Your task to perform on an android device: Go to network settings Image 0: 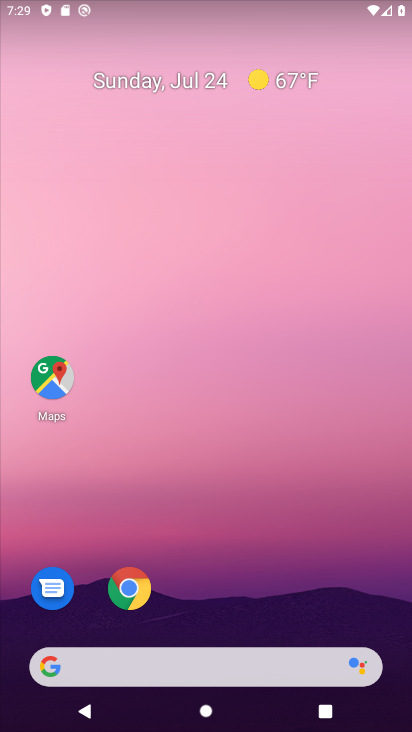
Step 0: drag from (220, 603) to (286, 180)
Your task to perform on an android device: Go to network settings Image 1: 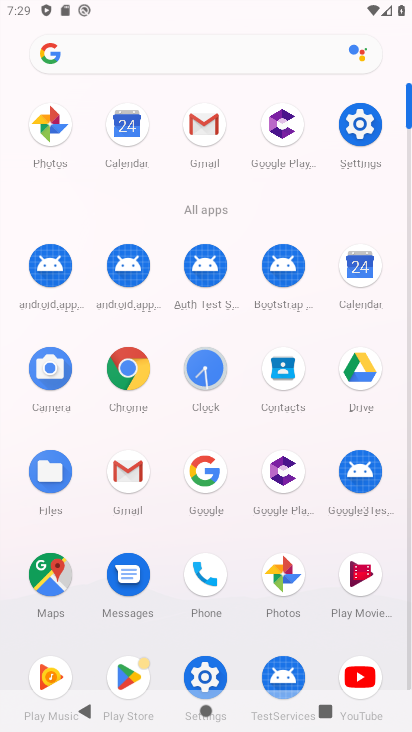
Step 1: click (359, 120)
Your task to perform on an android device: Go to network settings Image 2: 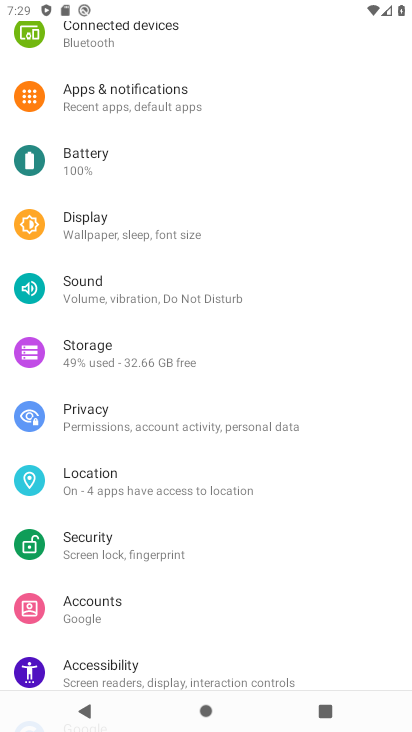
Step 2: drag from (131, 130) to (130, 640)
Your task to perform on an android device: Go to network settings Image 3: 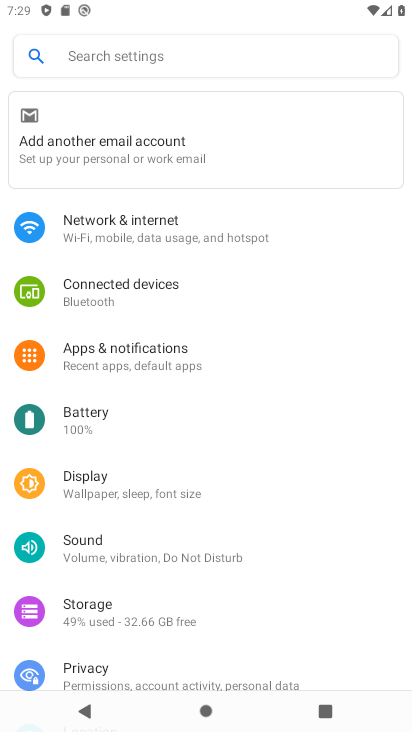
Step 3: click (114, 230)
Your task to perform on an android device: Go to network settings Image 4: 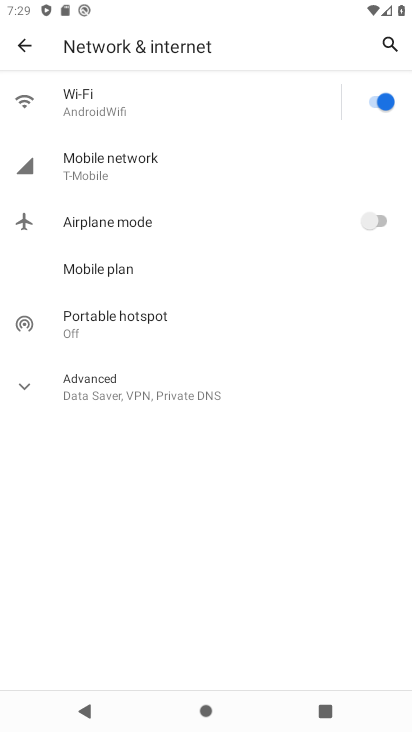
Step 4: task complete